Your task to perform on an android device: Go to eBay Image 0: 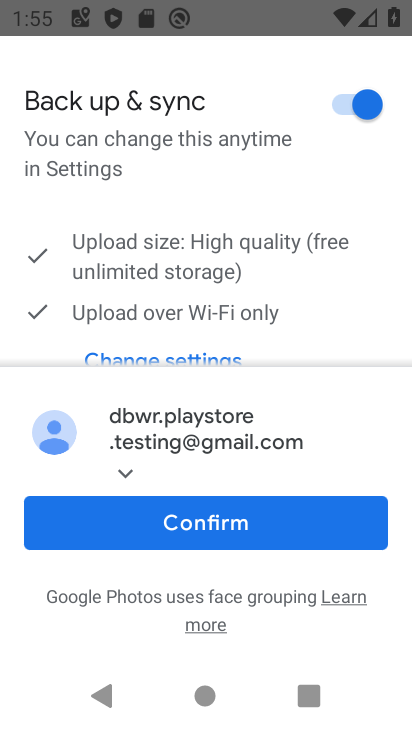
Step 0: press back button
Your task to perform on an android device: Go to eBay Image 1: 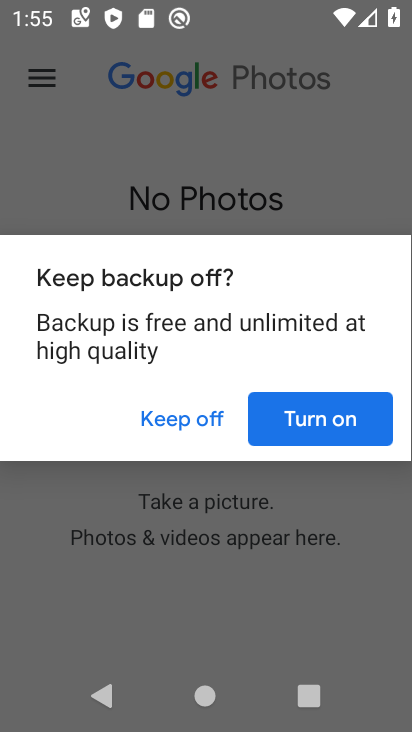
Step 1: press home button
Your task to perform on an android device: Go to eBay Image 2: 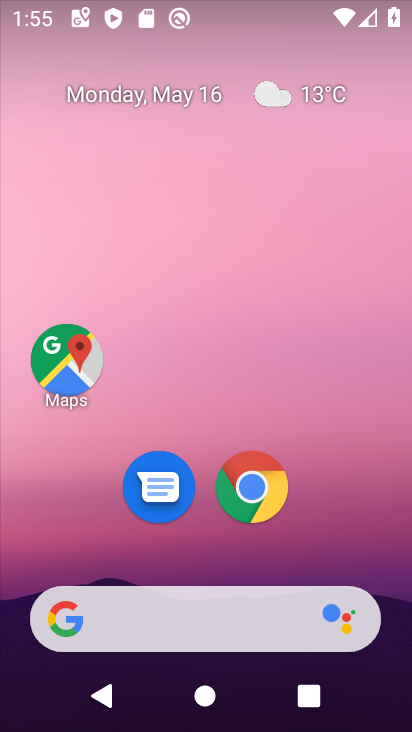
Step 2: drag from (328, 536) to (217, 23)
Your task to perform on an android device: Go to eBay Image 3: 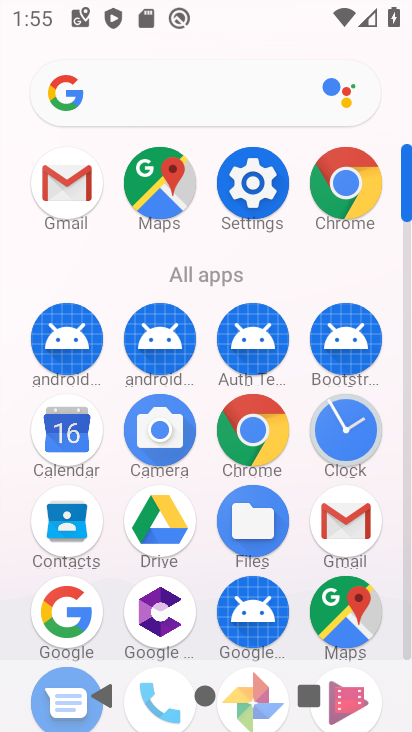
Step 3: click (344, 177)
Your task to perform on an android device: Go to eBay Image 4: 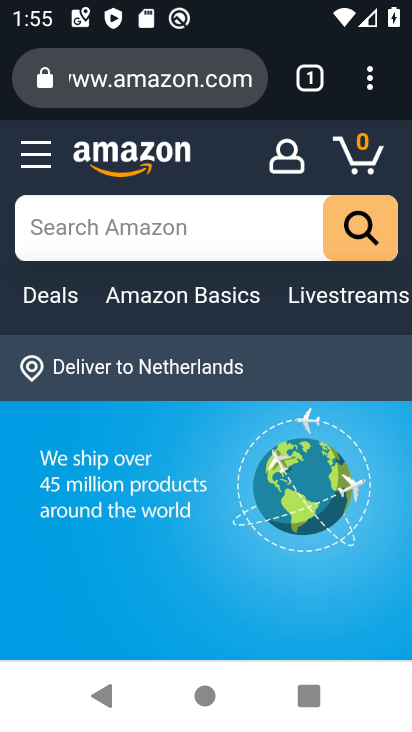
Step 4: click (166, 70)
Your task to perform on an android device: Go to eBay Image 5: 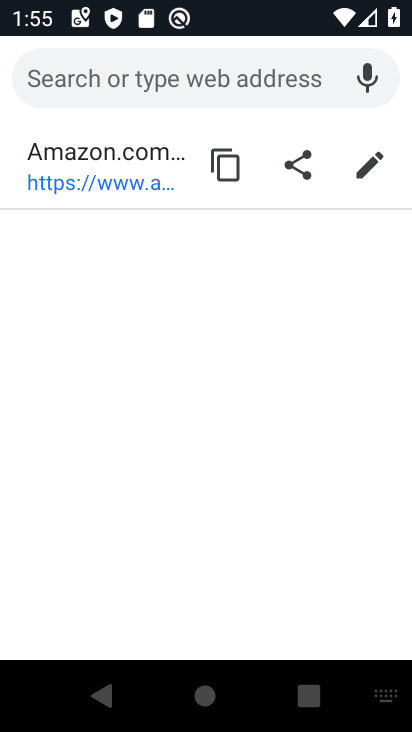
Step 5: type " eBay"
Your task to perform on an android device: Go to eBay Image 6: 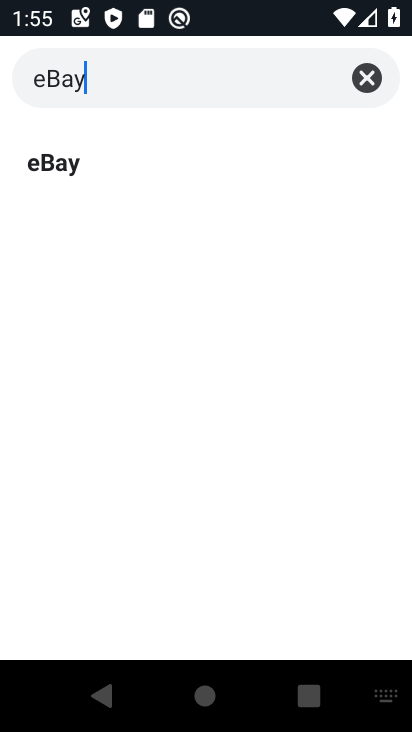
Step 6: type ""
Your task to perform on an android device: Go to eBay Image 7: 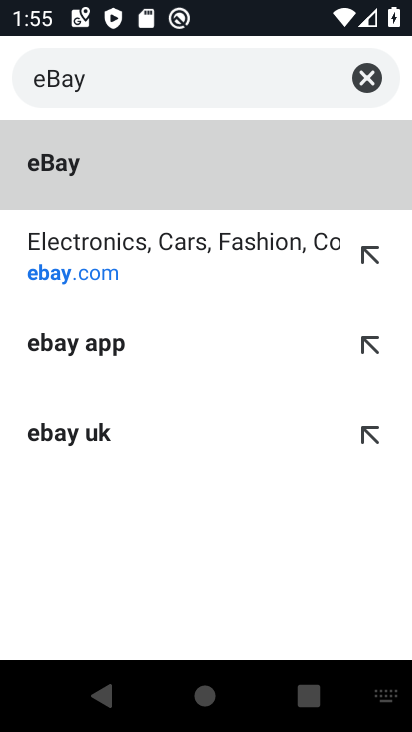
Step 7: click (112, 260)
Your task to perform on an android device: Go to eBay Image 8: 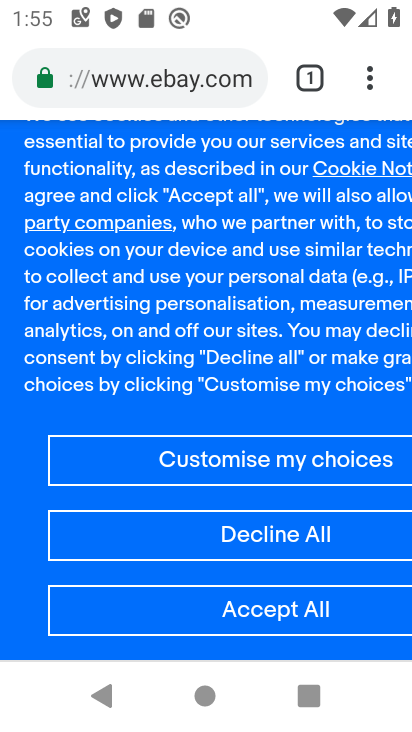
Step 8: click (164, 612)
Your task to perform on an android device: Go to eBay Image 9: 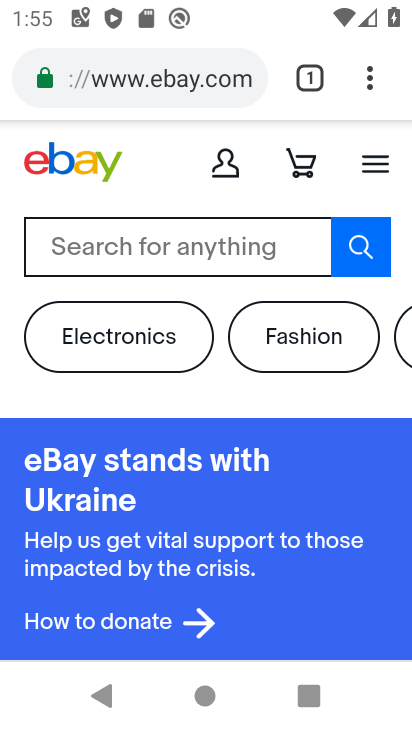
Step 9: task complete